Your task to perform on an android device: turn off notifications settings in the gmail app Image 0: 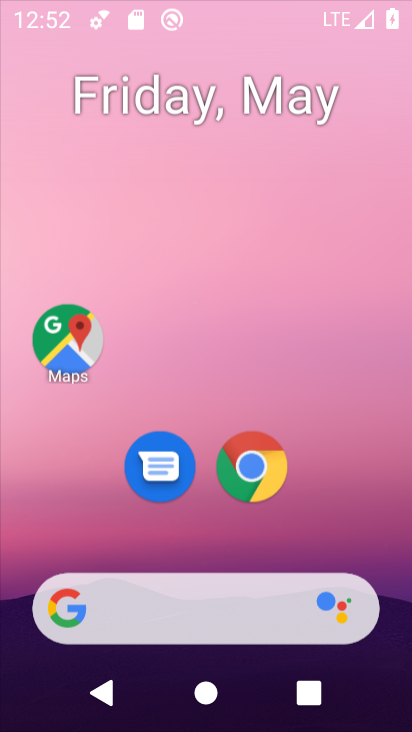
Step 0: drag from (365, 181) to (371, 6)
Your task to perform on an android device: turn off notifications settings in the gmail app Image 1: 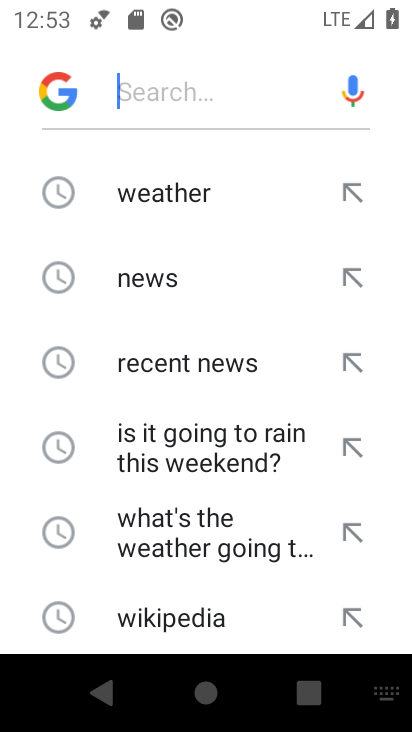
Step 1: press home button
Your task to perform on an android device: turn off notifications settings in the gmail app Image 2: 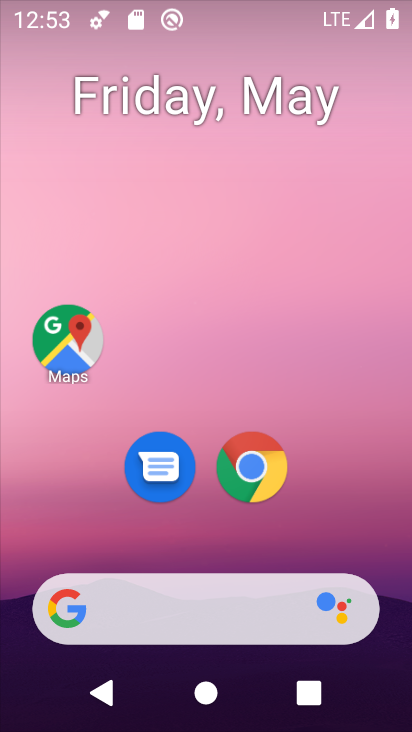
Step 2: drag from (366, 492) to (372, 37)
Your task to perform on an android device: turn off notifications settings in the gmail app Image 3: 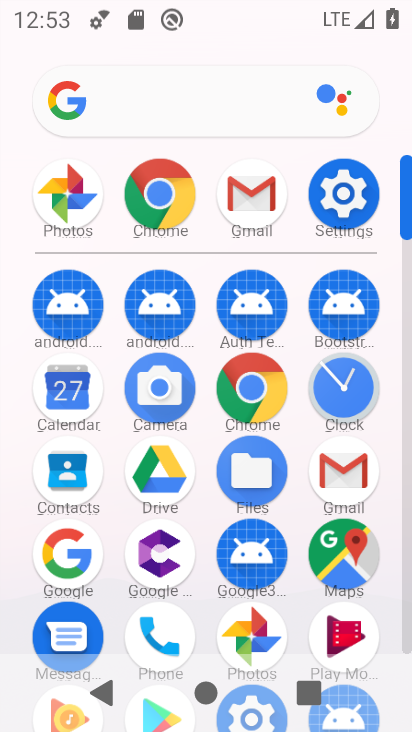
Step 3: click (252, 195)
Your task to perform on an android device: turn off notifications settings in the gmail app Image 4: 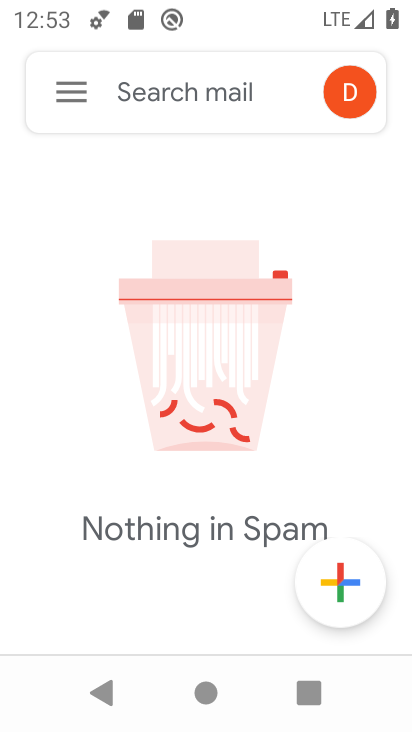
Step 4: click (95, 100)
Your task to perform on an android device: turn off notifications settings in the gmail app Image 5: 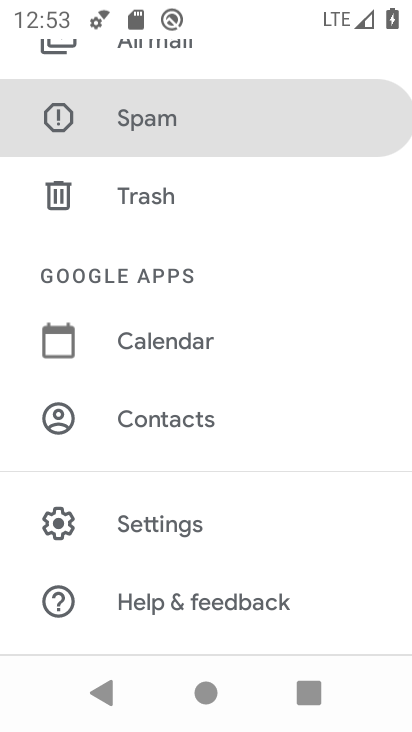
Step 5: click (171, 534)
Your task to perform on an android device: turn off notifications settings in the gmail app Image 6: 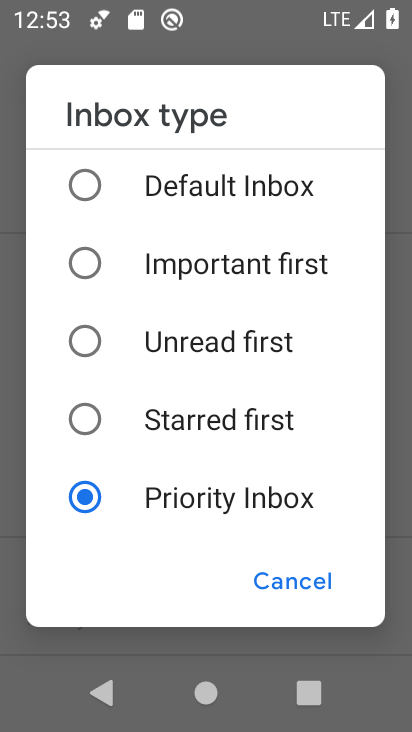
Step 6: click (288, 581)
Your task to perform on an android device: turn off notifications settings in the gmail app Image 7: 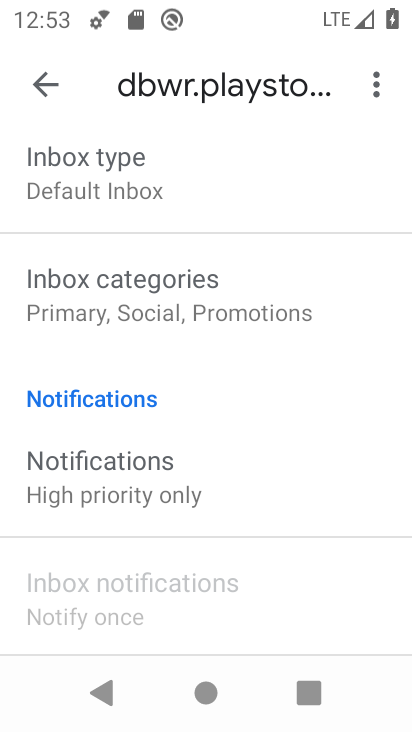
Step 7: click (151, 508)
Your task to perform on an android device: turn off notifications settings in the gmail app Image 8: 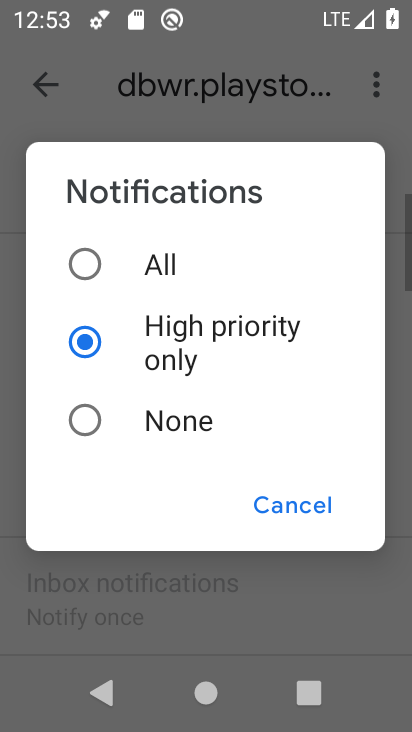
Step 8: click (168, 419)
Your task to perform on an android device: turn off notifications settings in the gmail app Image 9: 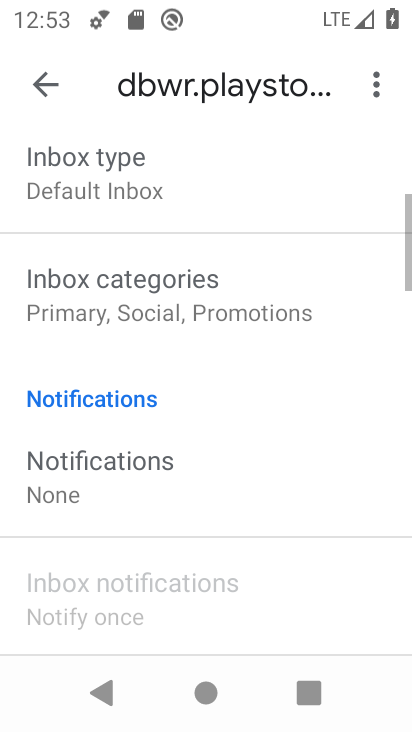
Step 9: task complete